Your task to perform on an android device: allow notifications from all sites in the chrome app Image 0: 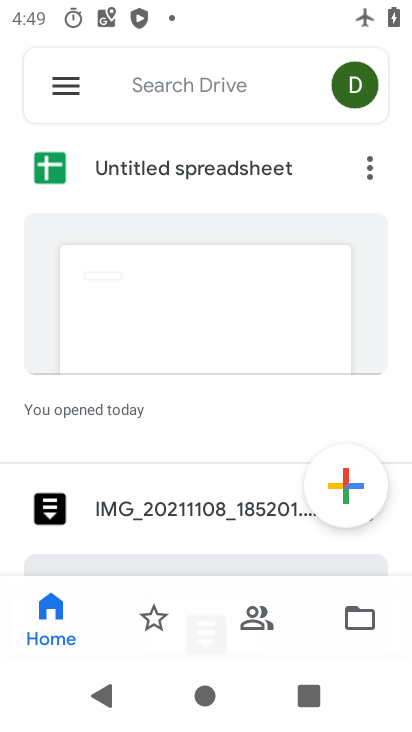
Step 0: press home button
Your task to perform on an android device: allow notifications from all sites in the chrome app Image 1: 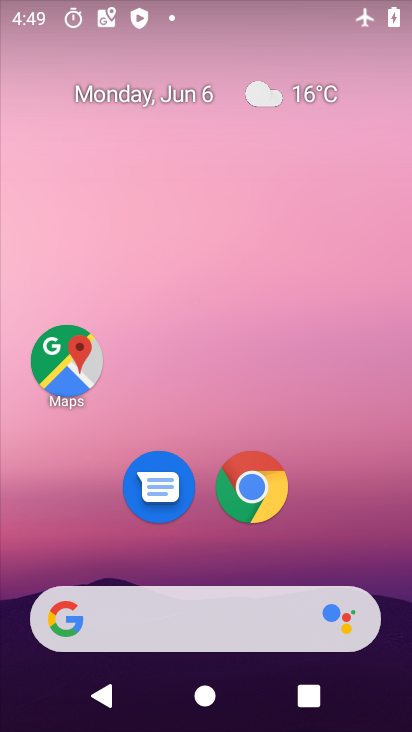
Step 1: drag from (367, 547) to (238, 172)
Your task to perform on an android device: allow notifications from all sites in the chrome app Image 2: 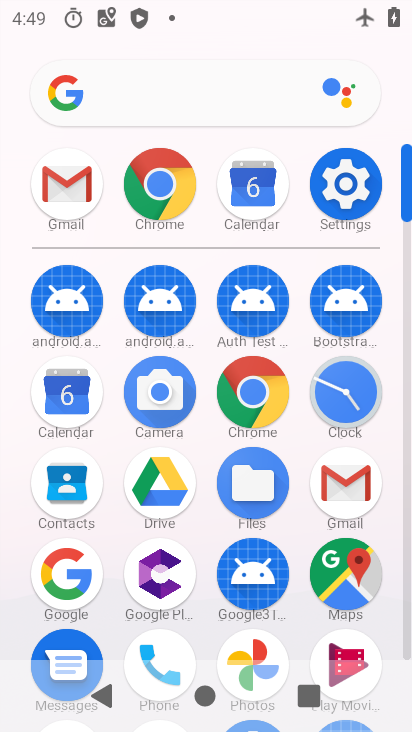
Step 2: click (258, 392)
Your task to perform on an android device: allow notifications from all sites in the chrome app Image 3: 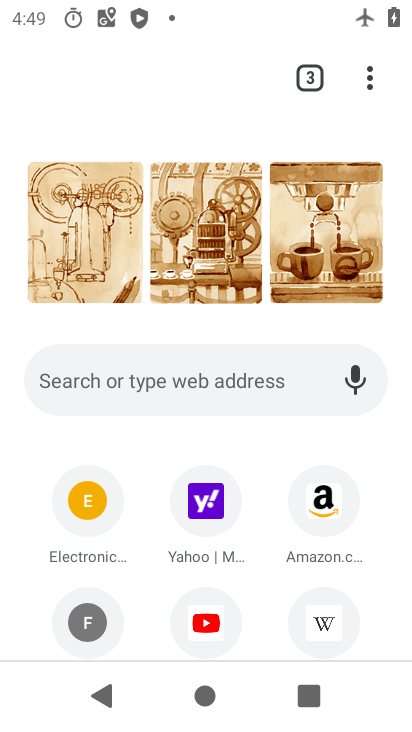
Step 3: drag from (365, 68) to (172, 547)
Your task to perform on an android device: allow notifications from all sites in the chrome app Image 4: 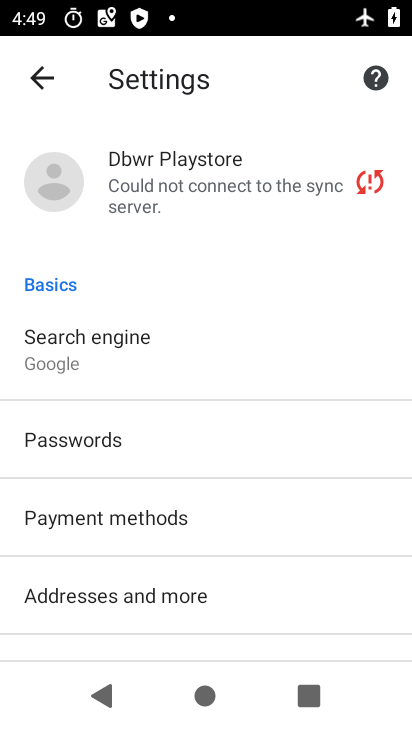
Step 4: drag from (252, 413) to (252, 128)
Your task to perform on an android device: allow notifications from all sites in the chrome app Image 5: 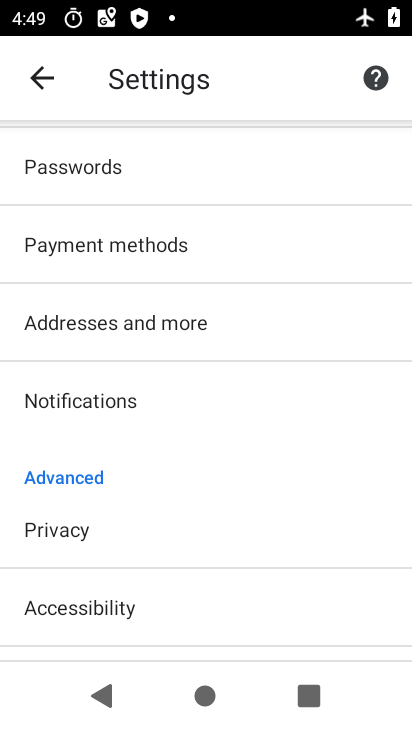
Step 5: click (117, 398)
Your task to perform on an android device: allow notifications from all sites in the chrome app Image 6: 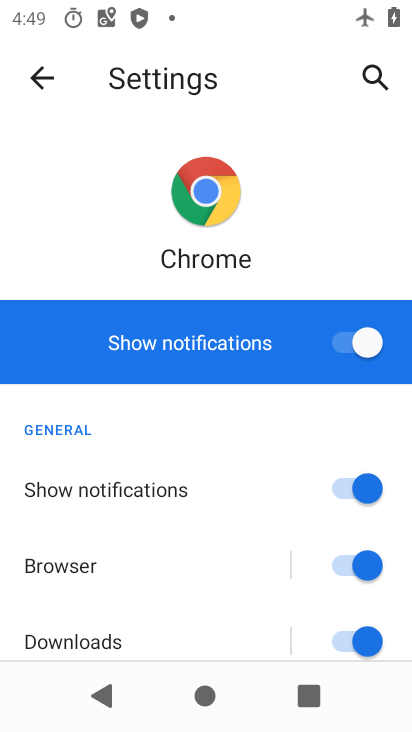
Step 6: task complete